Your task to perform on an android device: toggle data saver in the chrome app Image 0: 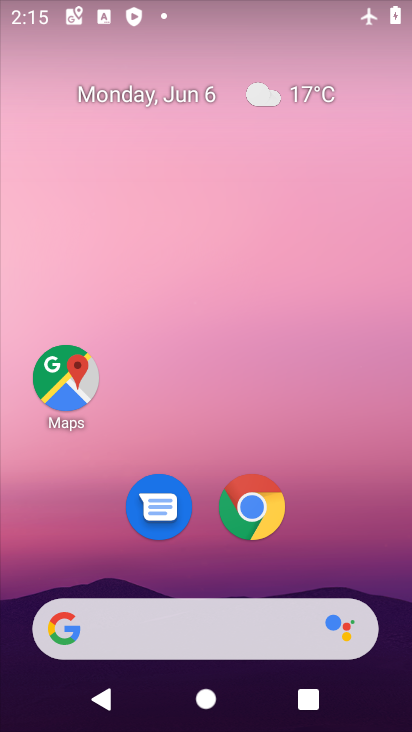
Step 0: click (267, 499)
Your task to perform on an android device: toggle data saver in the chrome app Image 1: 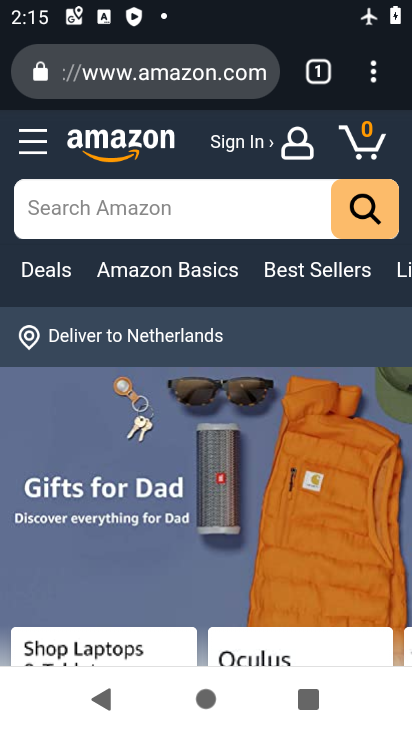
Step 1: click (375, 85)
Your task to perform on an android device: toggle data saver in the chrome app Image 2: 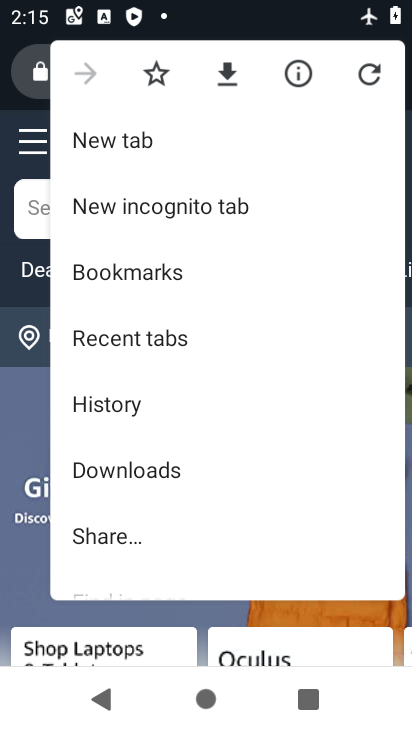
Step 2: drag from (250, 477) to (256, 163)
Your task to perform on an android device: toggle data saver in the chrome app Image 3: 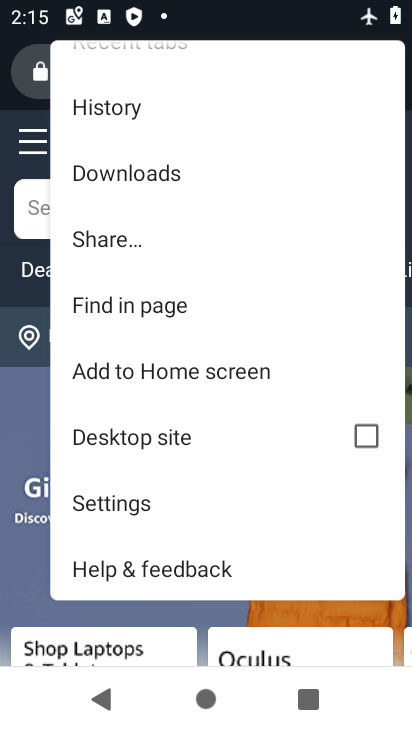
Step 3: click (205, 512)
Your task to perform on an android device: toggle data saver in the chrome app Image 4: 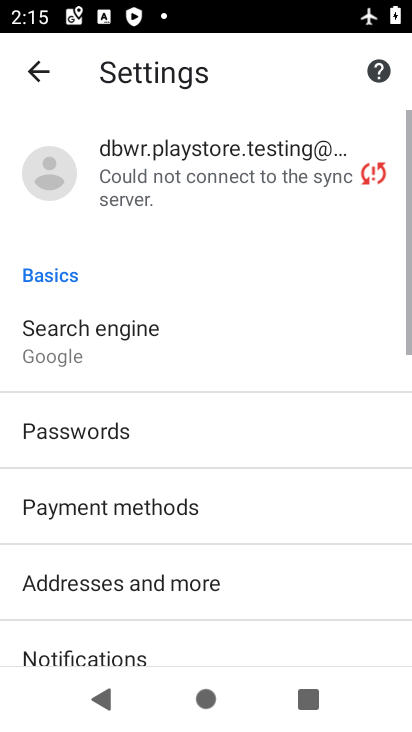
Step 4: drag from (208, 504) to (261, 75)
Your task to perform on an android device: toggle data saver in the chrome app Image 5: 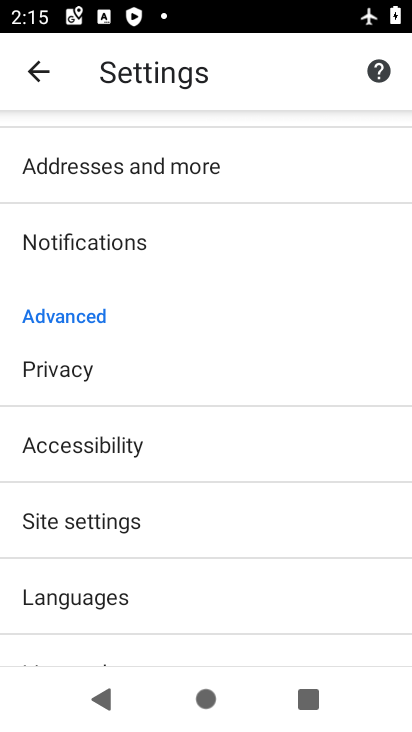
Step 5: drag from (203, 487) to (194, 344)
Your task to perform on an android device: toggle data saver in the chrome app Image 6: 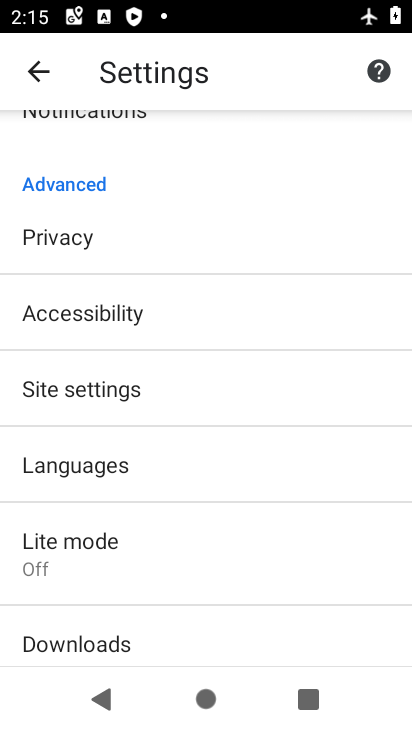
Step 6: click (149, 551)
Your task to perform on an android device: toggle data saver in the chrome app Image 7: 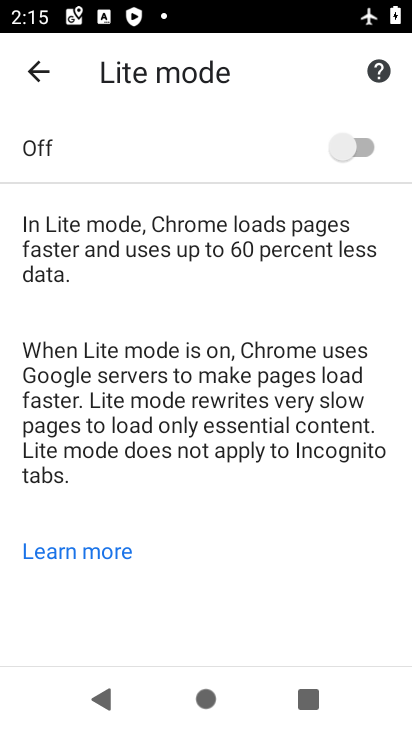
Step 7: click (351, 150)
Your task to perform on an android device: toggle data saver in the chrome app Image 8: 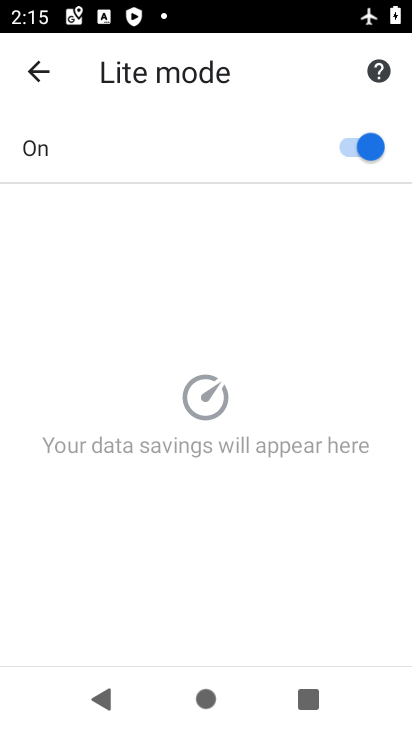
Step 8: task complete